Your task to perform on an android device: Go to settings Image 0: 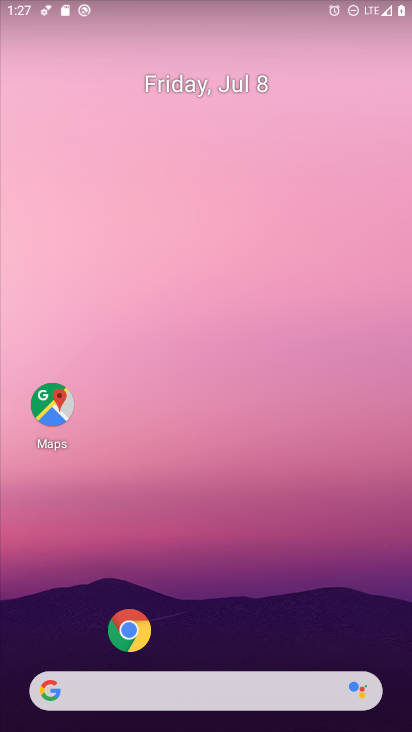
Step 0: drag from (229, 686) to (260, 107)
Your task to perform on an android device: Go to settings Image 1: 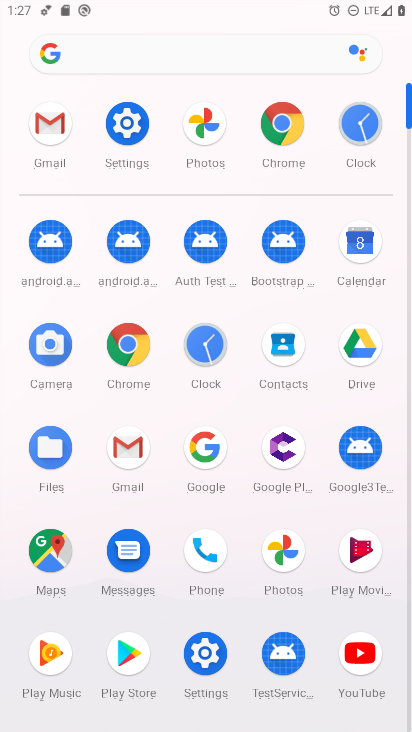
Step 1: click (134, 127)
Your task to perform on an android device: Go to settings Image 2: 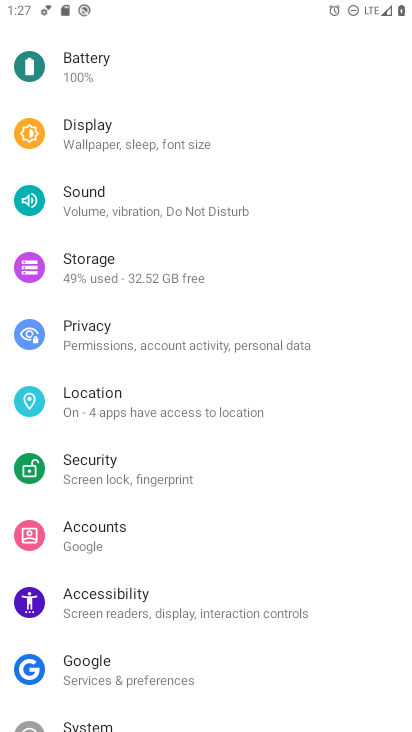
Step 2: task complete